Your task to perform on an android device: Do I have any events tomorrow? Image 0: 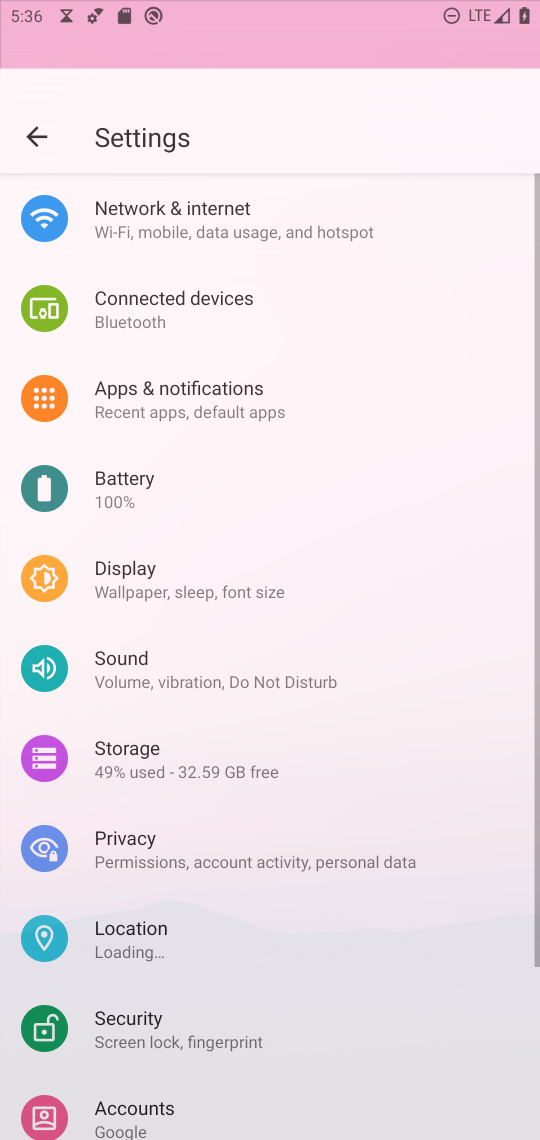
Step 0: press home button
Your task to perform on an android device: Do I have any events tomorrow? Image 1: 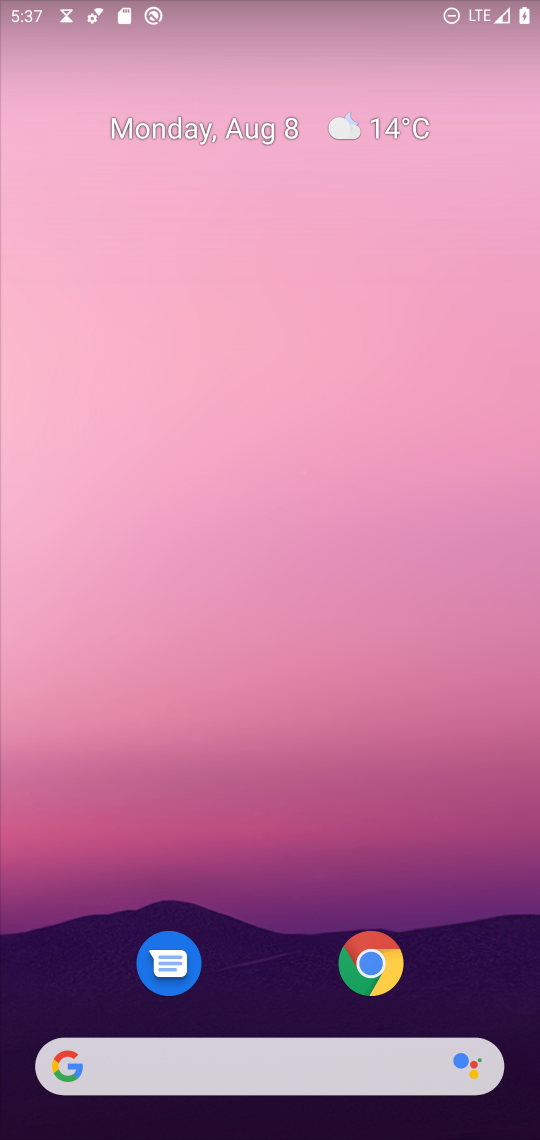
Step 1: drag from (274, 940) to (224, 542)
Your task to perform on an android device: Do I have any events tomorrow? Image 2: 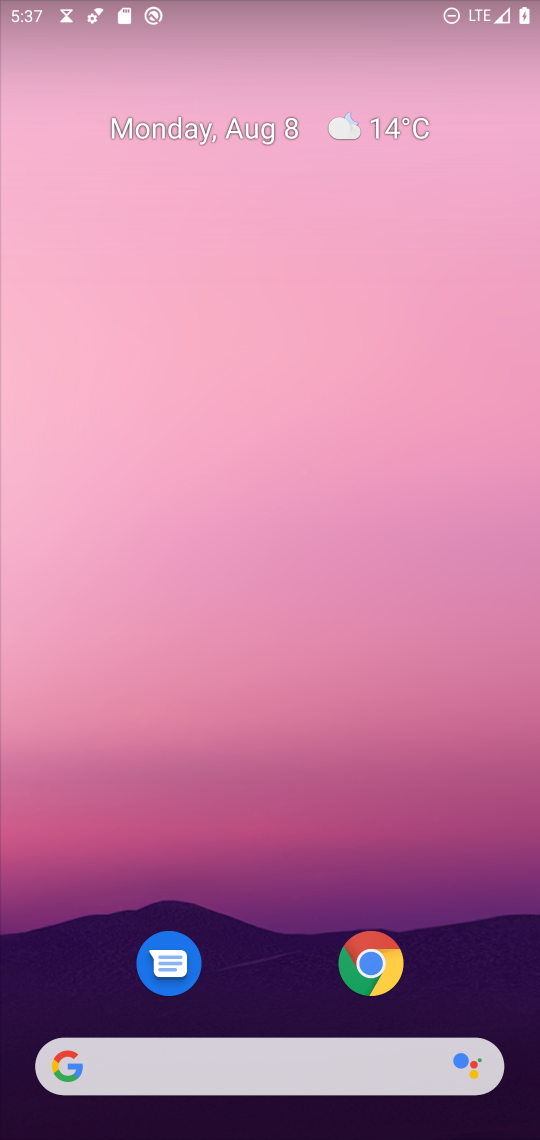
Step 2: drag from (267, 775) to (246, 160)
Your task to perform on an android device: Do I have any events tomorrow? Image 3: 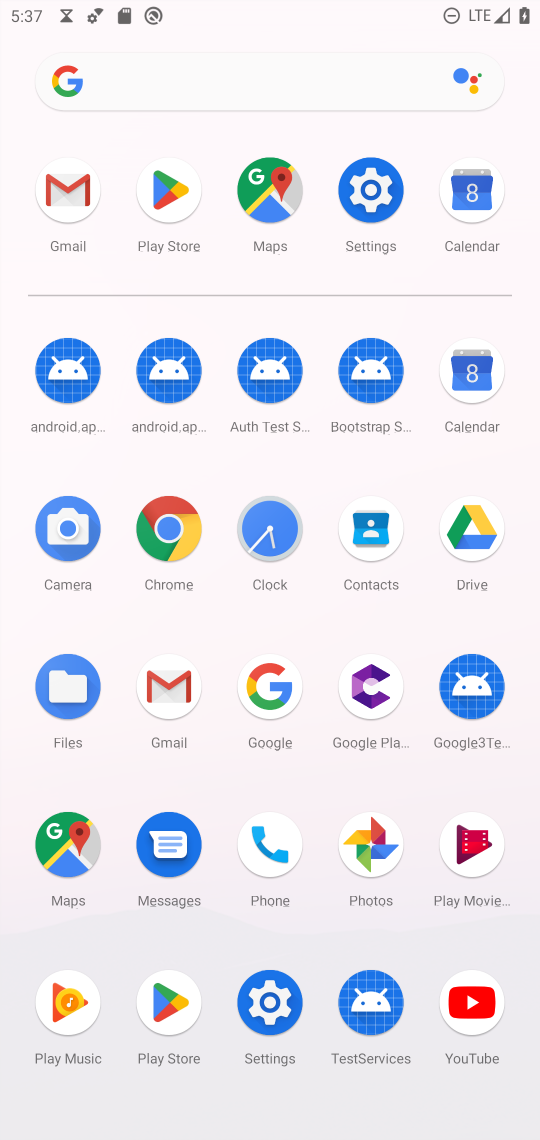
Step 3: click (481, 186)
Your task to perform on an android device: Do I have any events tomorrow? Image 4: 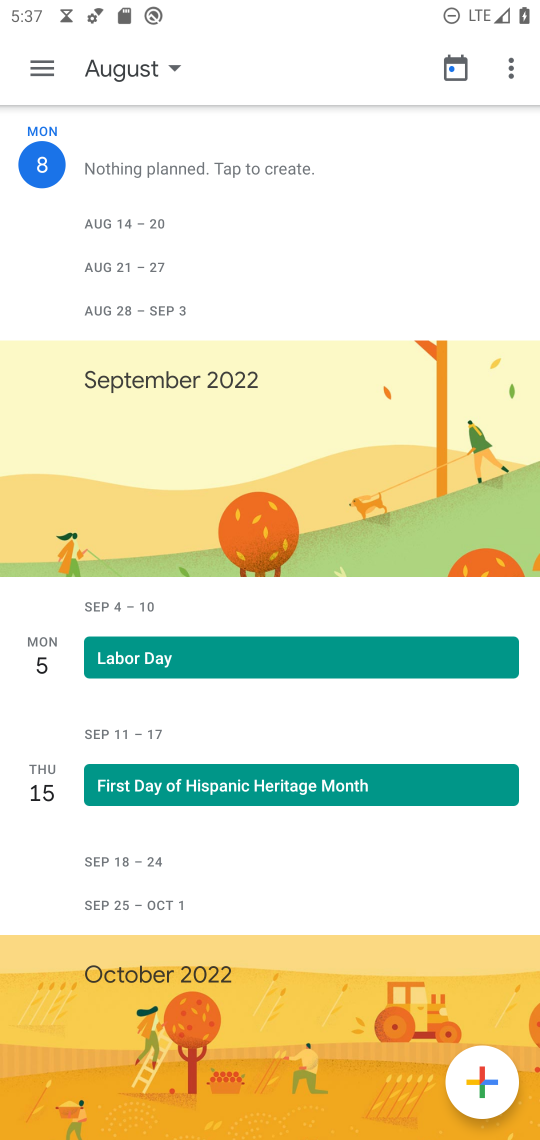
Step 4: click (147, 71)
Your task to perform on an android device: Do I have any events tomorrow? Image 5: 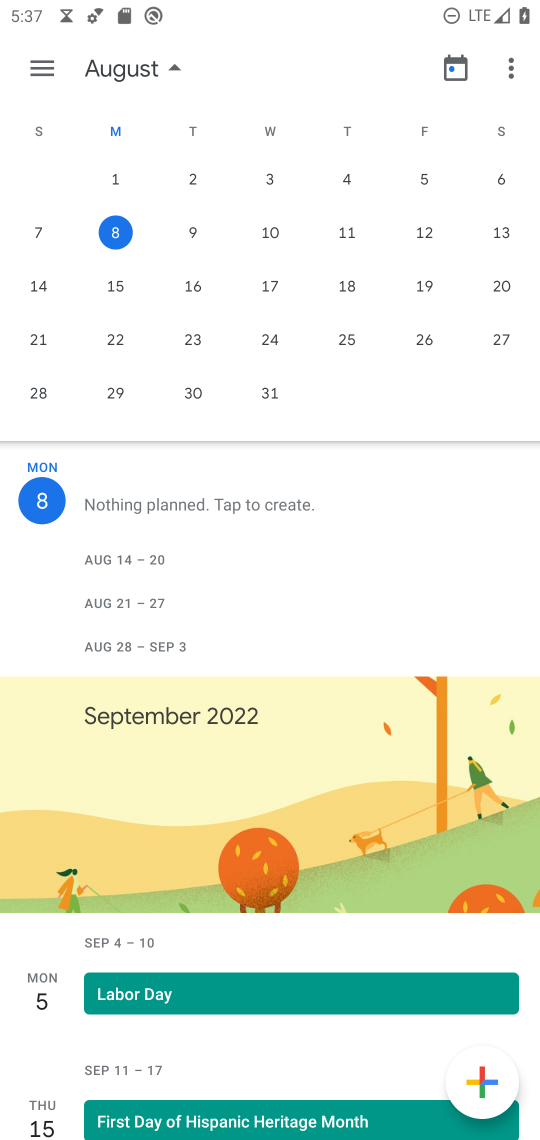
Step 5: click (199, 242)
Your task to perform on an android device: Do I have any events tomorrow? Image 6: 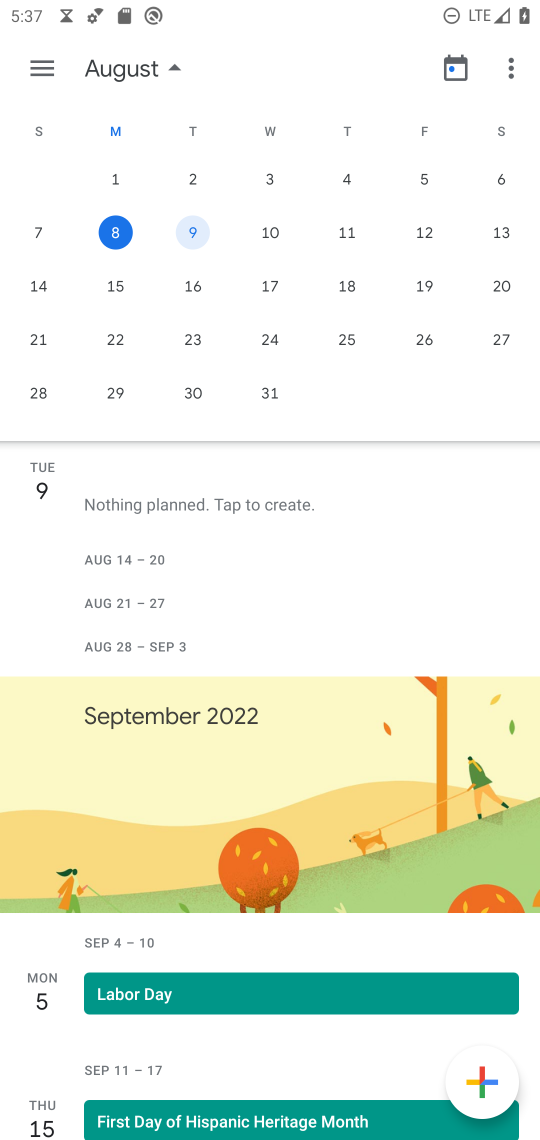
Step 6: task complete